Your task to perform on an android device: Open sound settings Image 0: 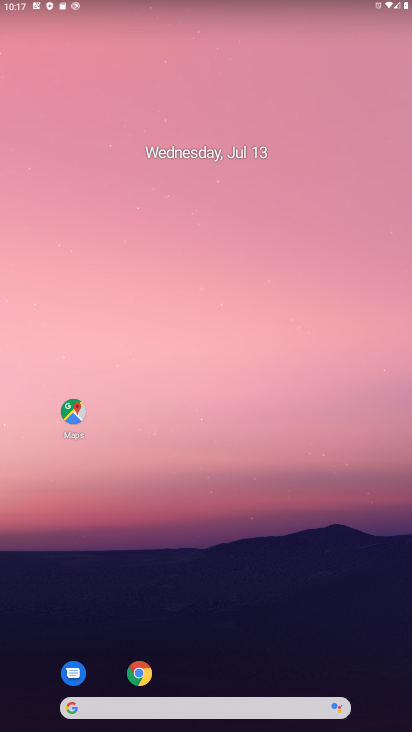
Step 0: drag from (204, 676) to (133, 210)
Your task to perform on an android device: Open sound settings Image 1: 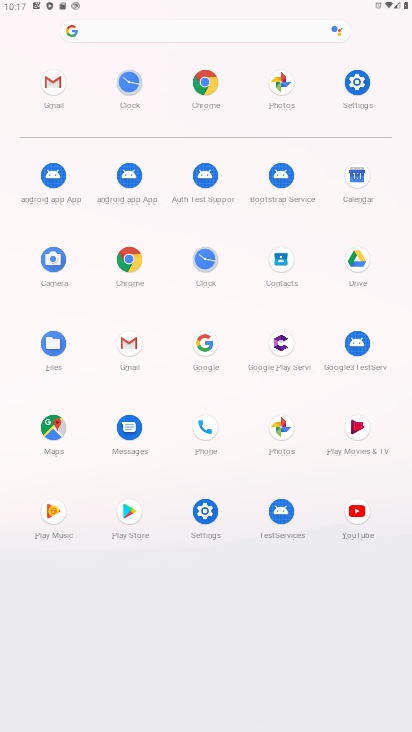
Step 1: click (356, 90)
Your task to perform on an android device: Open sound settings Image 2: 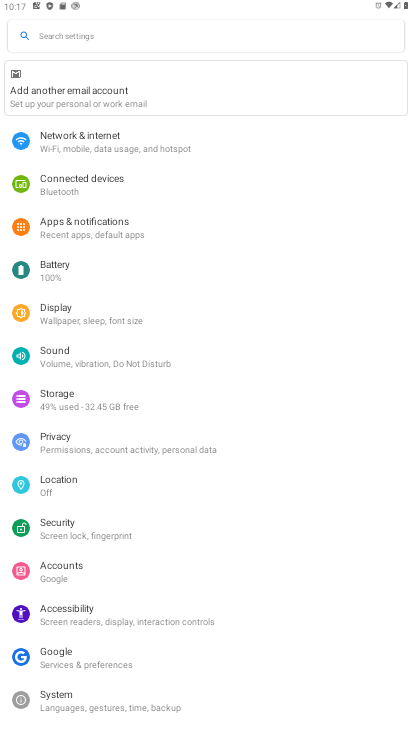
Step 2: click (91, 356)
Your task to perform on an android device: Open sound settings Image 3: 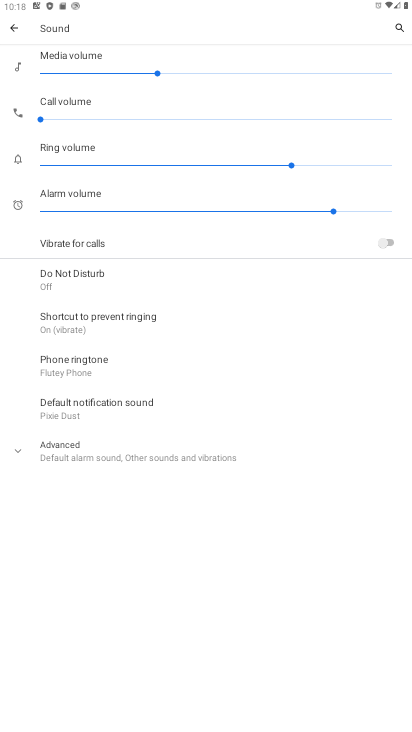
Step 3: task complete